Your task to perform on an android device: Go to sound settings Image 0: 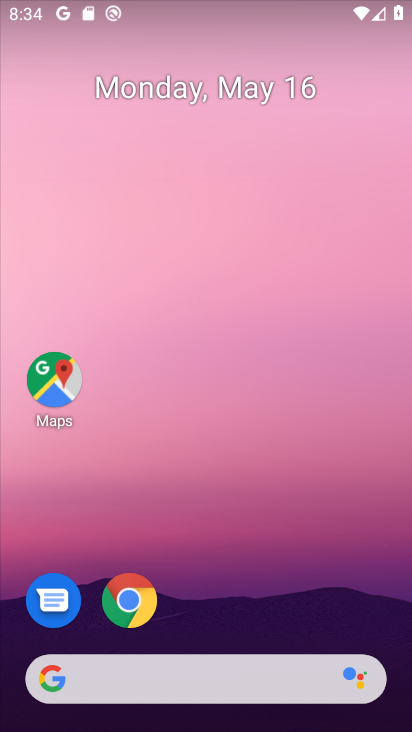
Step 0: drag from (278, 708) to (100, 39)
Your task to perform on an android device: Go to sound settings Image 1: 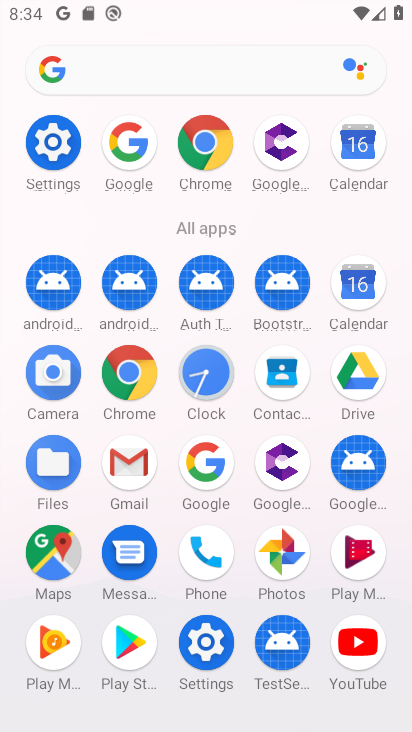
Step 1: click (57, 166)
Your task to perform on an android device: Go to sound settings Image 2: 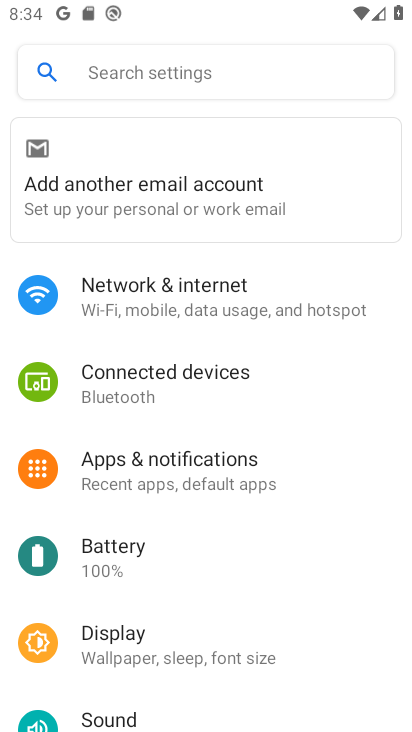
Step 2: drag from (177, 593) to (116, 126)
Your task to perform on an android device: Go to sound settings Image 3: 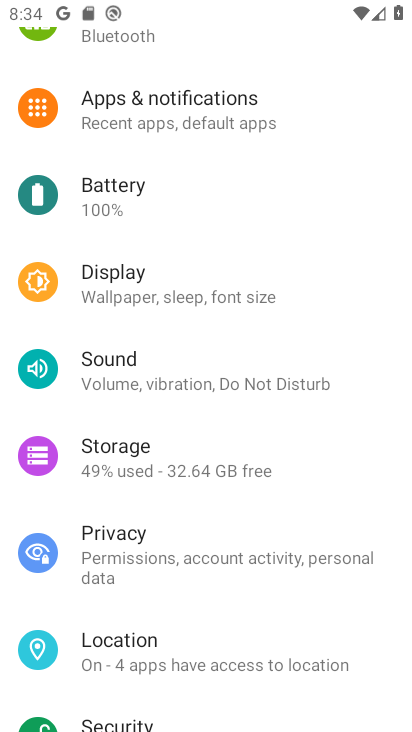
Step 3: click (142, 377)
Your task to perform on an android device: Go to sound settings Image 4: 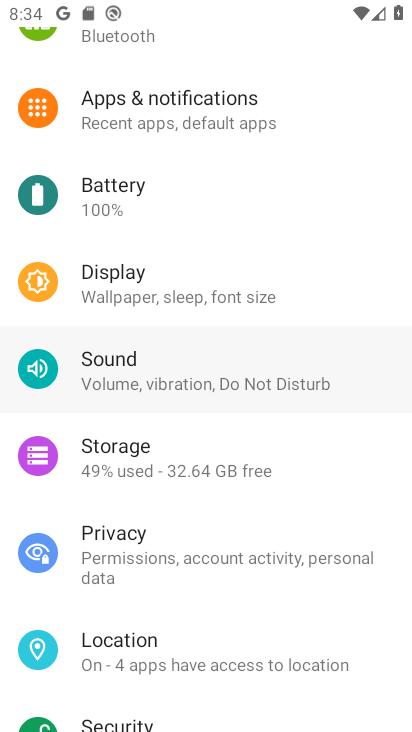
Step 4: click (142, 377)
Your task to perform on an android device: Go to sound settings Image 5: 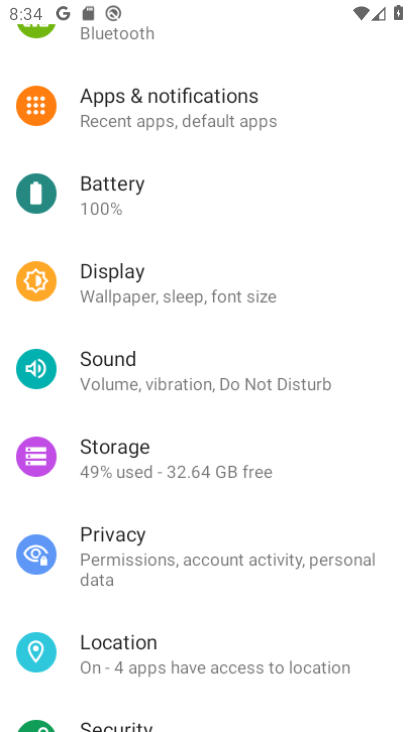
Step 5: click (143, 376)
Your task to perform on an android device: Go to sound settings Image 6: 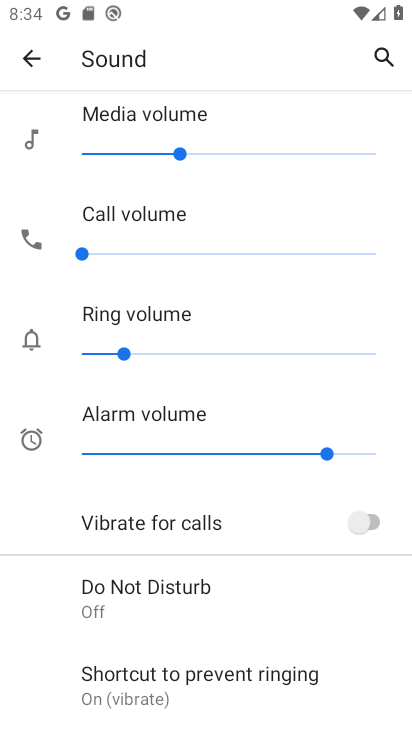
Step 6: task complete